Your task to perform on an android device: toggle data saver in the chrome app Image 0: 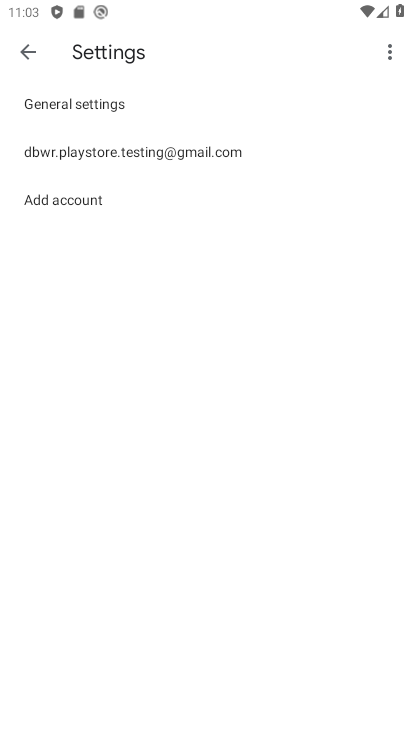
Step 0: press home button
Your task to perform on an android device: toggle data saver in the chrome app Image 1: 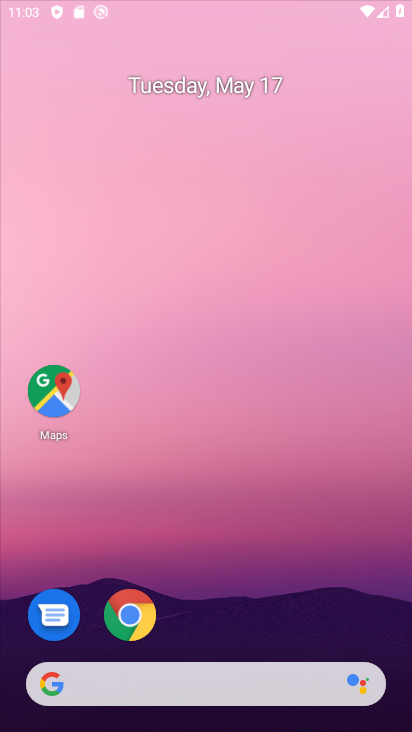
Step 1: drag from (387, 651) to (263, 44)
Your task to perform on an android device: toggle data saver in the chrome app Image 2: 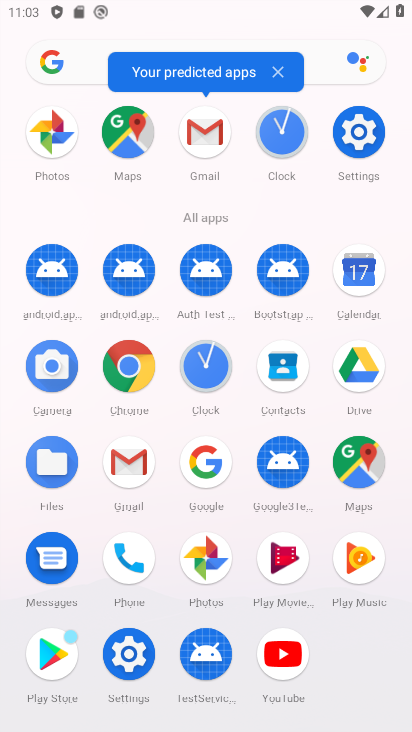
Step 2: click (125, 383)
Your task to perform on an android device: toggle data saver in the chrome app Image 3: 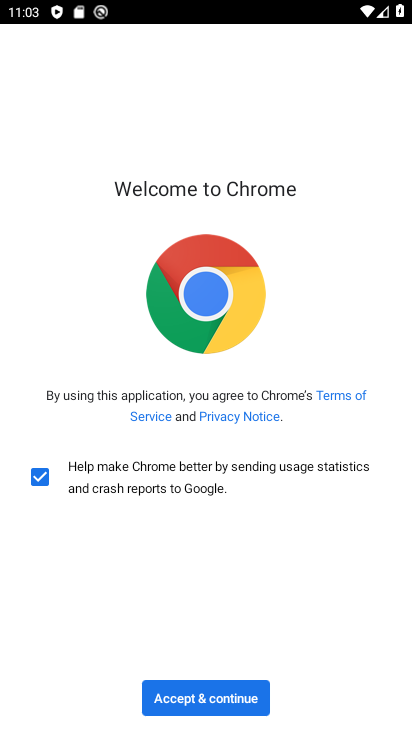
Step 3: click (215, 693)
Your task to perform on an android device: toggle data saver in the chrome app Image 4: 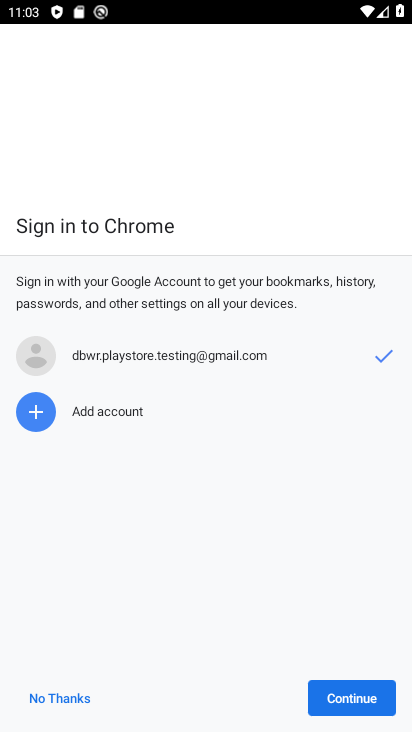
Step 4: click (332, 695)
Your task to perform on an android device: toggle data saver in the chrome app Image 5: 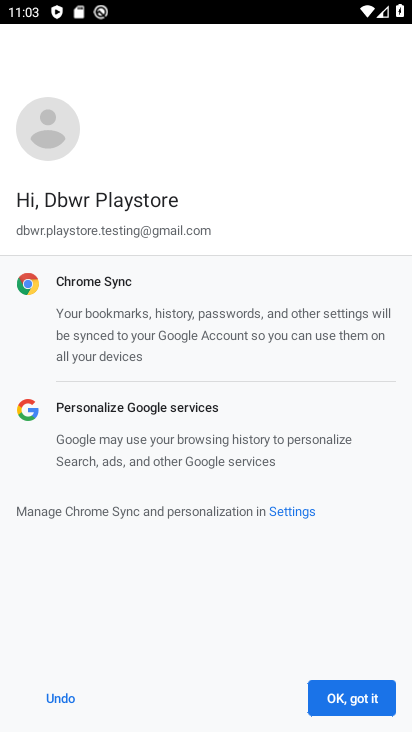
Step 5: click (332, 695)
Your task to perform on an android device: toggle data saver in the chrome app Image 6: 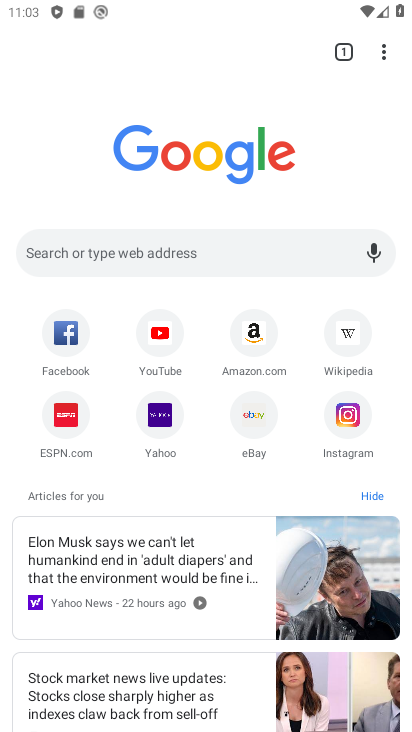
Step 6: click (381, 50)
Your task to perform on an android device: toggle data saver in the chrome app Image 7: 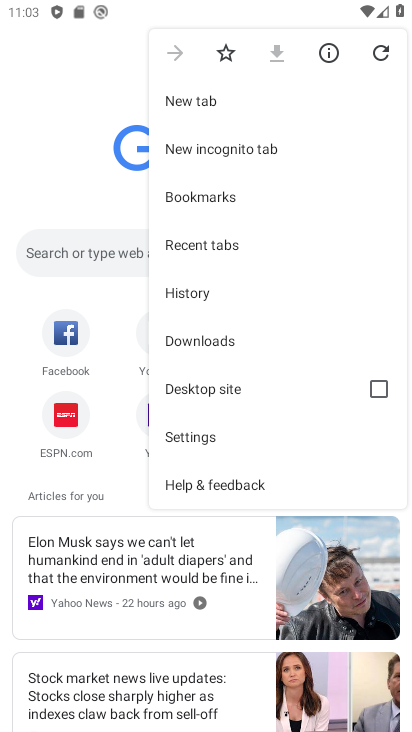
Step 7: click (236, 439)
Your task to perform on an android device: toggle data saver in the chrome app Image 8: 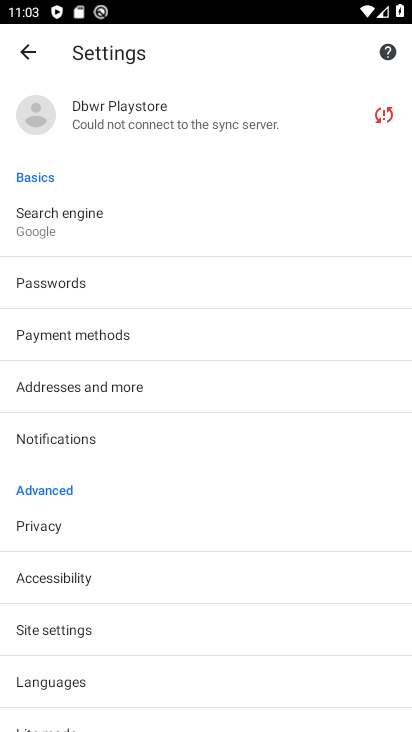
Step 8: drag from (156, 635) to (201, 285)
Your task to perform on an android device: toggle data saver in the chrome app Image 9: 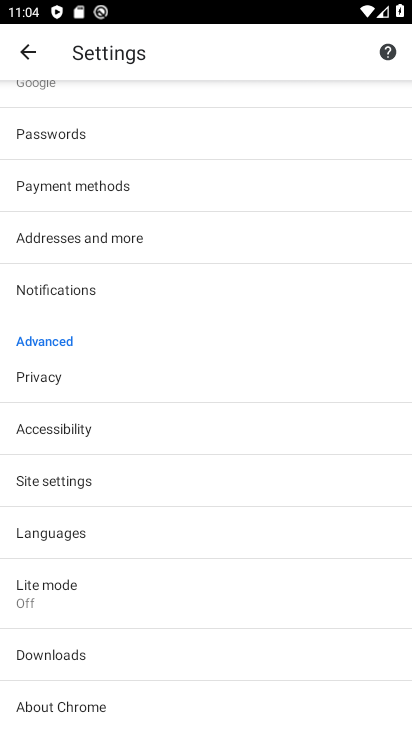
Step 9: click (80, 601)
Your task to perform on an android device: toggle data saver in the chrome app Image 10: 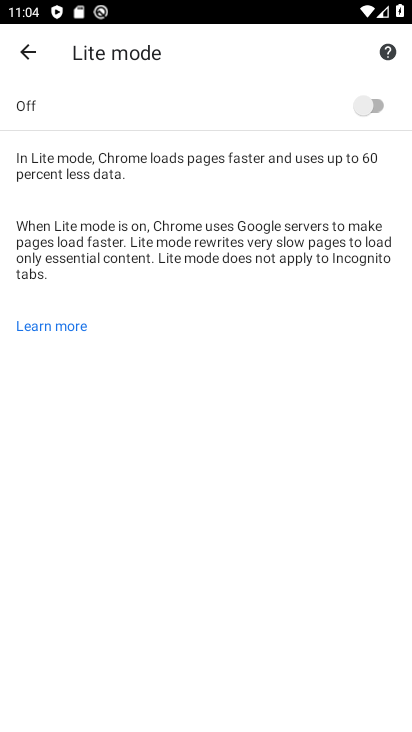
Step 10: click (365, 113)
Your task to perform on an android device: toggle data saver in the chrome app Image 11: 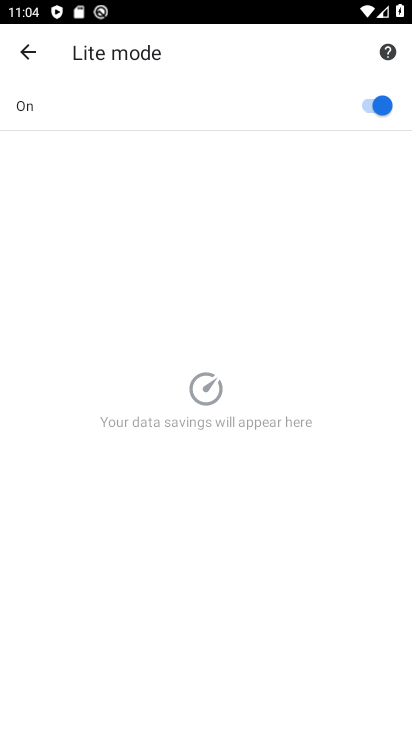
Step 11: task complete